Your task to perform on an android device: open sync settings in chrome Image 0: 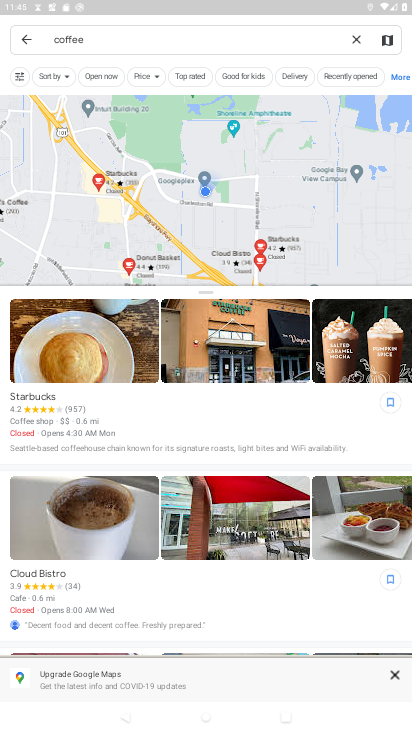
Step 0: press home button
Your task to perform on an android device: open sync settings in chrome Image 1: 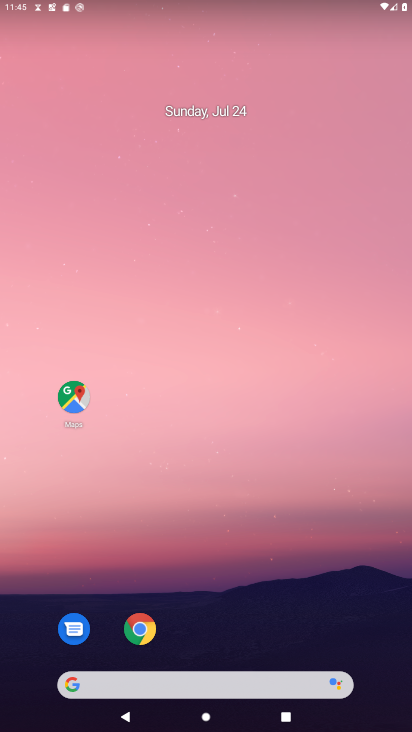
Step 1: click (149, 610)
Your task to perform on an android device: open sync settings in chrome Image 2: 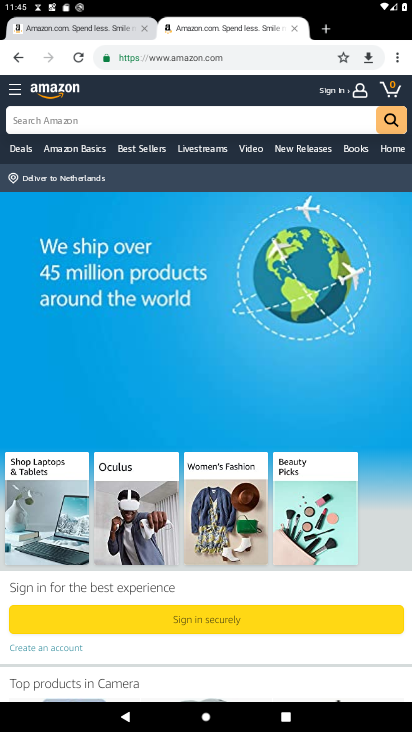
Step 2: click (396, 60)
Your task to perform on an android device: open sync settings in chrome Image 3: 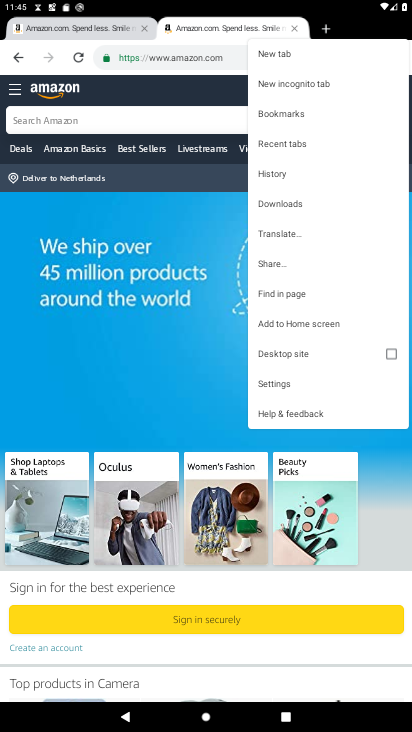
Step 3: click (276, 391)
Your task to perform on an android device: open sync settings in chrome Image 4: 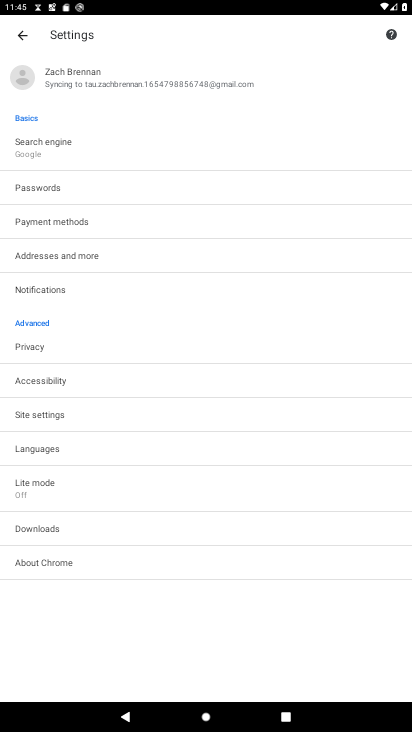
Step 4: click (188, 82)
Your task to perform on an android device: open sync settings in chrome Image 5: 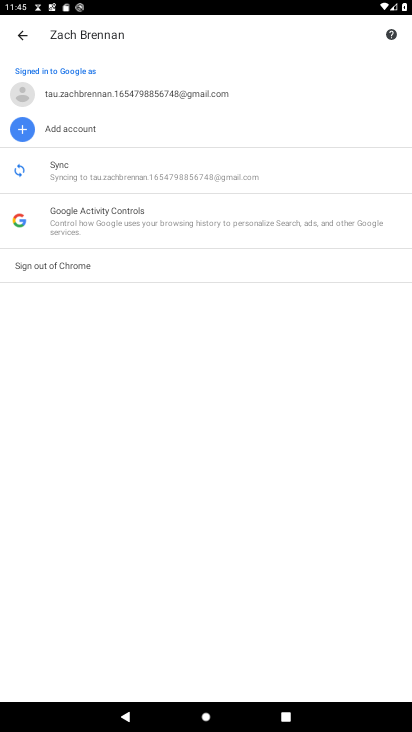
Step 5: click (168, 170)
Your task to perform on an android device: open sync settings in chrome Image 6: 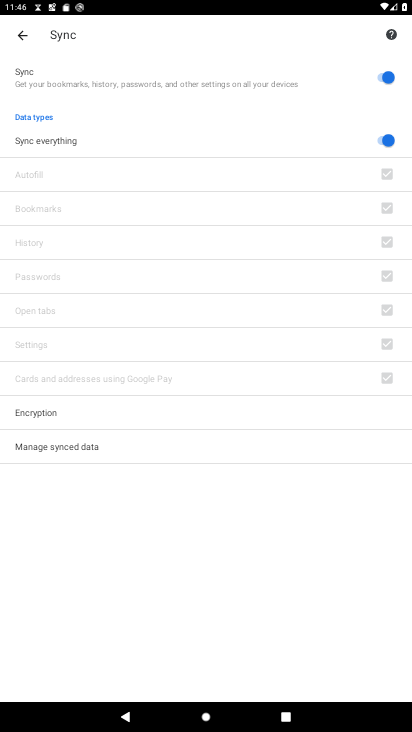
Step 6: task complete